Your task to perform on an android device: When is my next meeting? Image 0: 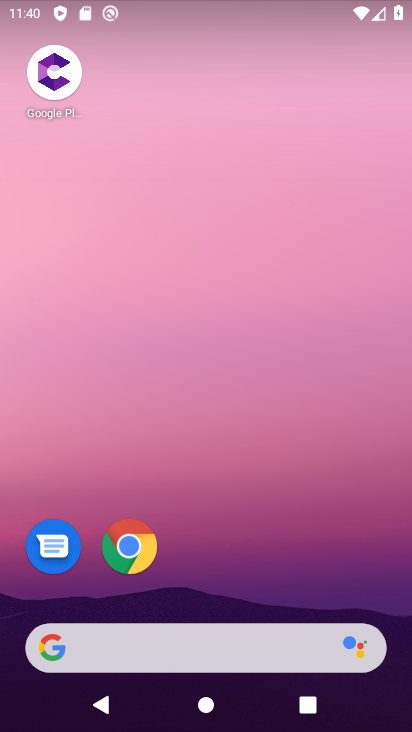
Step 0: drag from (10, 268) to (367, 267)
Your task to perform on an android device: When is my next meeting? Image 1: 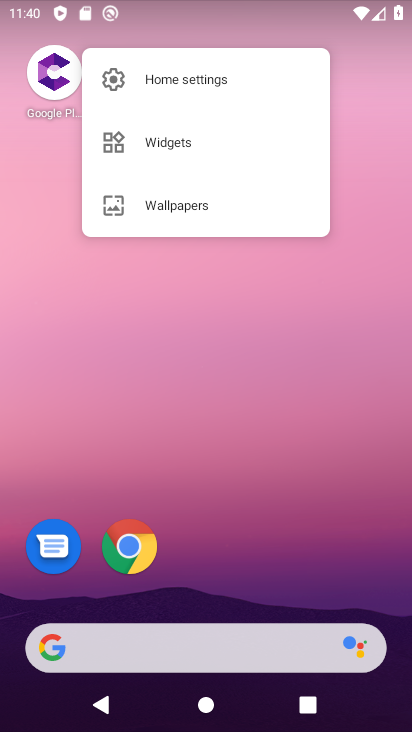
Step 1: click (367, 267)
Your task to perform on an android device: When is my next meeting? Image 2: 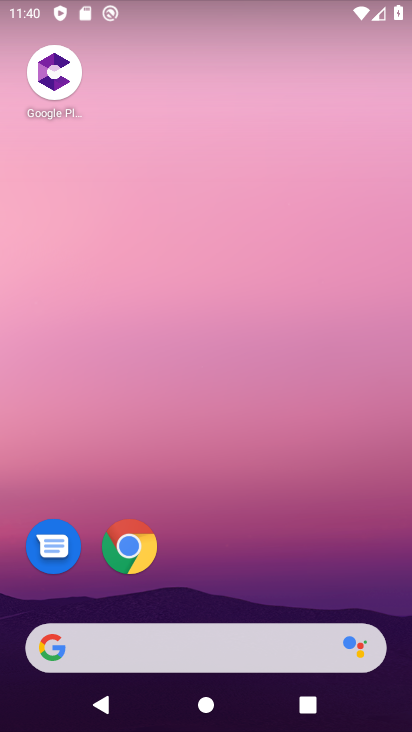
Step 2: drag from (18, 460) to (410, 503)
Your task to perform on an android device: When is my next meeting? Image 3: 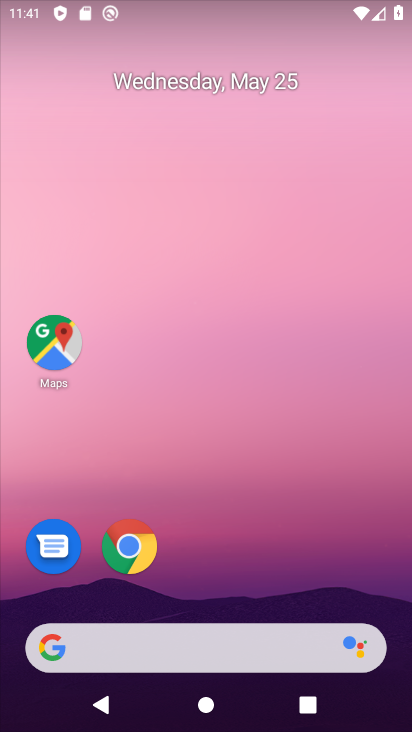
Step 3: click (207, 81)
Your task to perform on an android device: When is my next meeting? Image 4: 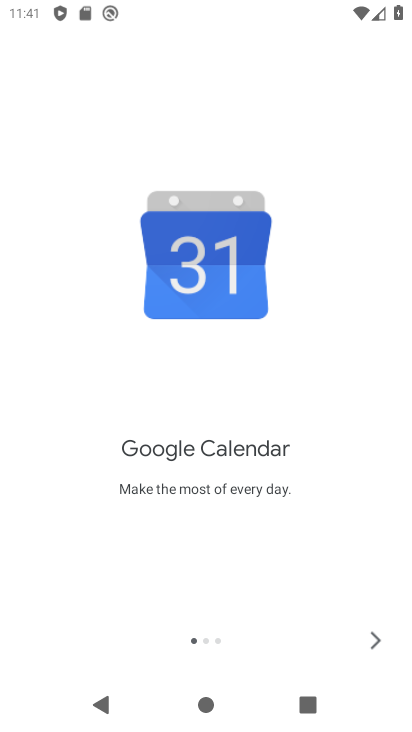
Step 4: click (394, 638)
Your task to perform on an android device: When is my next meeting? Image 5: 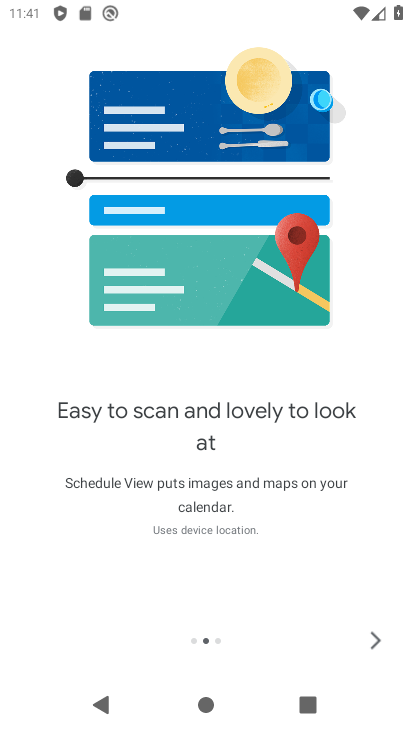
Step 5: click (370, 644)
Your task to perform on an android device: When is my next meeting? Image 6: 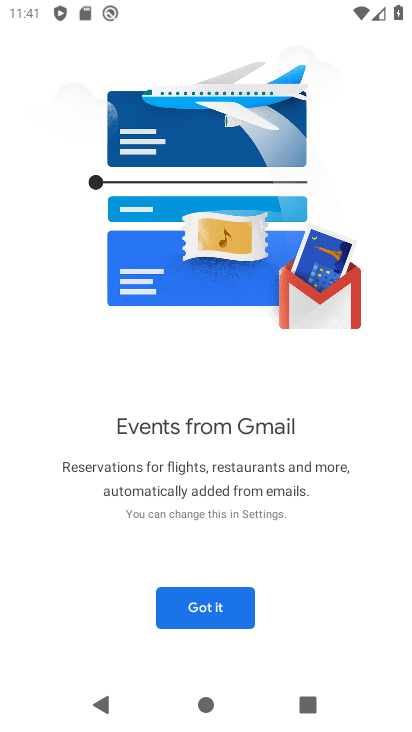
Step 6: click (182, 598)
Your task to perform on an android device: When is my next meeting? Image 7: 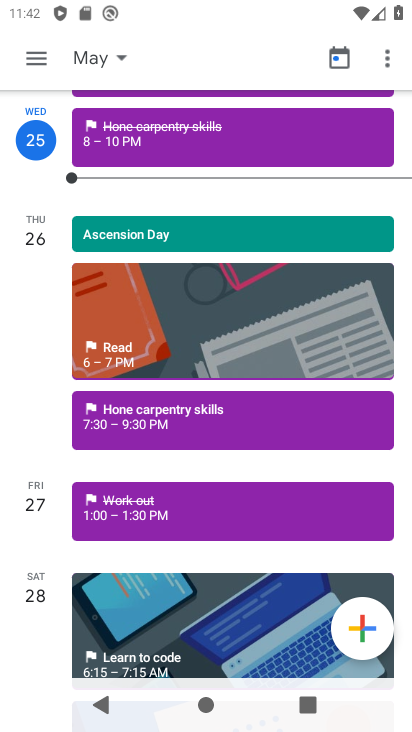
Step 7: task complete